Your task to perform on an android device: search for starred emails in the gmail app Image 0: 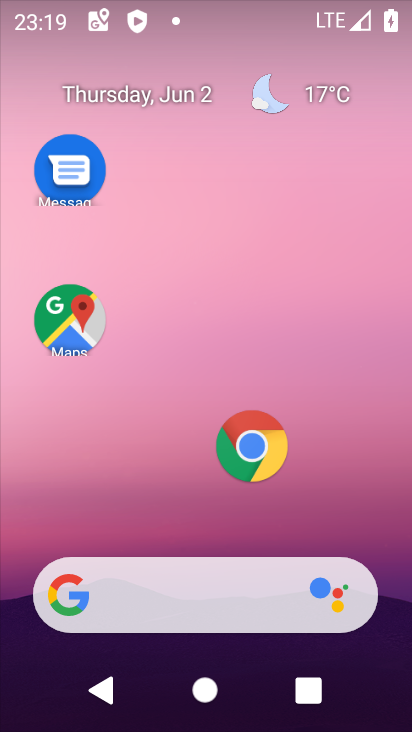
Step 0: press home button
Your task to perform on an android device: search for starred emails in the gmail app Image 1: 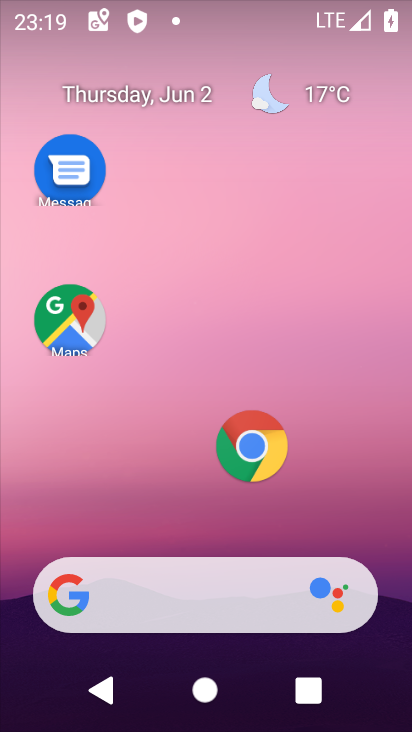
Step 1: drag from (226, 518) to (190, 5)
Your task to perform on an android device: search for starred emails in the gmail app Image 2: 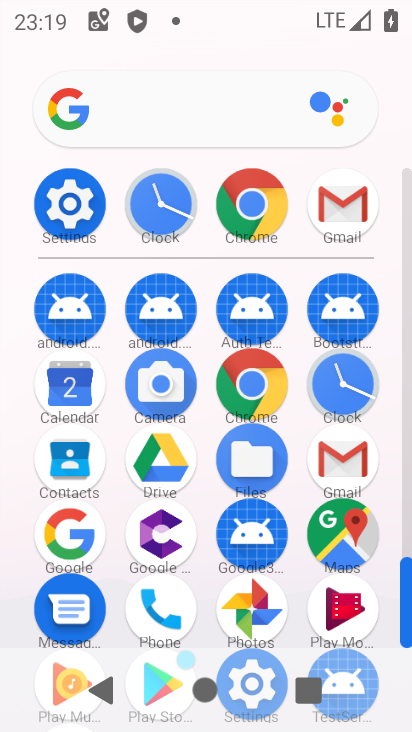
Step 2: click (348, 220)
Your task to perform on an android device: search for starred emails in the gmail app Image 3: 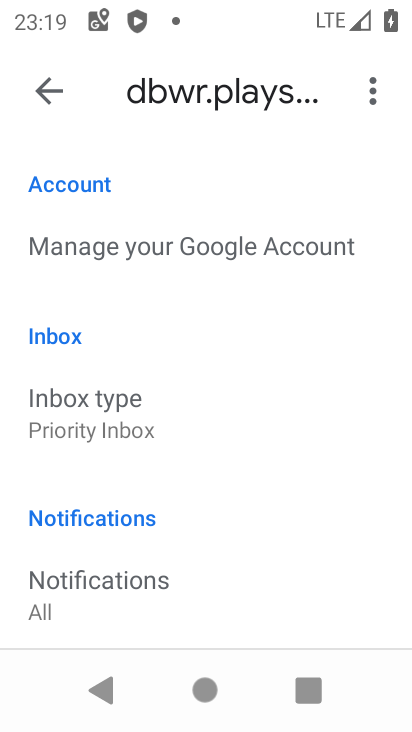
Step 3: click (59, 102)
Your task to perform on an android device: search for starred emails in the gmail app Image 4: 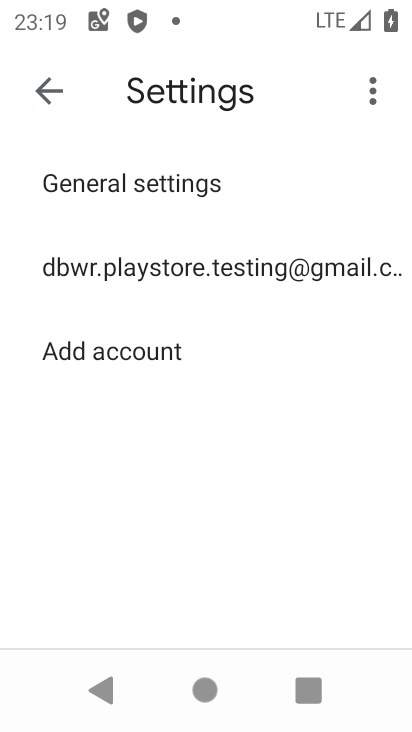
Step 4: click (59, 102)
Your task to perform on an android device: search for starred emails in the gmail app Image 5: 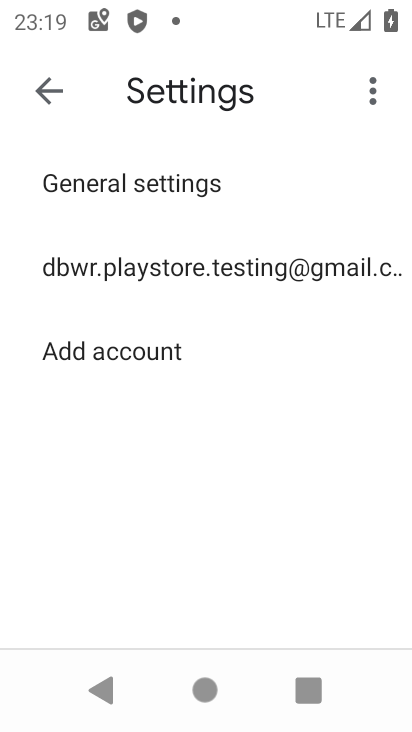
Step 5: click (78, 78)
Your task to perform on an android device: search for starred emails in the gmail app Image 6: 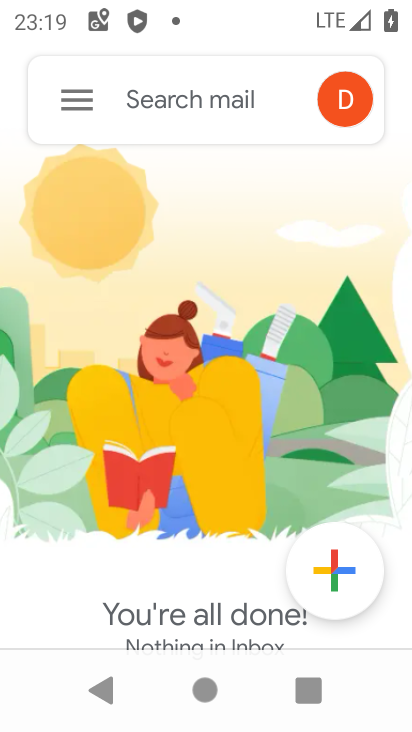
Step 6: click (90, 94)
Your task to perform on an android device: search for starred emails in the gmail app Image 7: 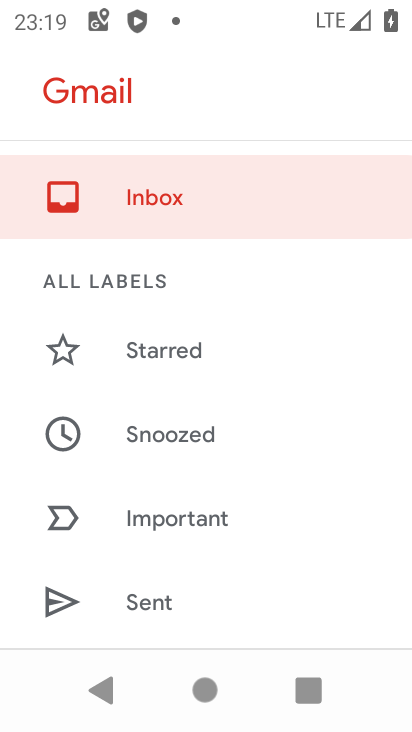
Step 7: task complete